Your task to perform on an android device: Do I have any events today? Image 0: 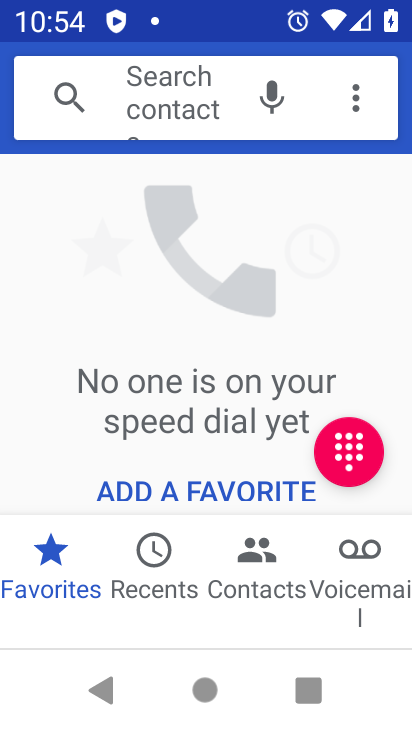
Step 0: press home button
Your task to perform on an android device: Do I have any events today? Image 1: 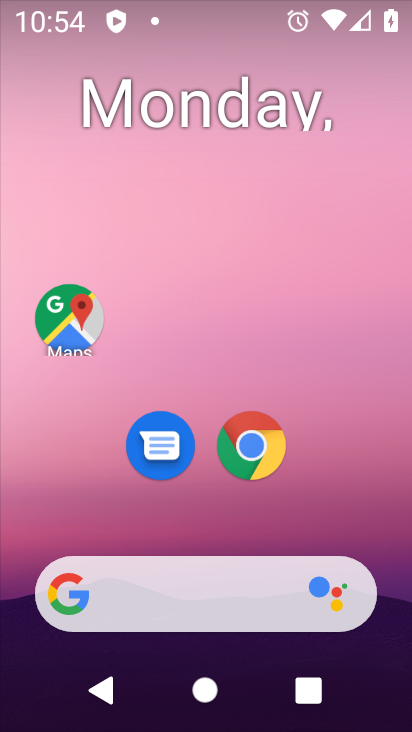
Step 1: drag from (320, 378) to (274, 106)
Your task to perform on an android device: Do I have any events today? Image 2: 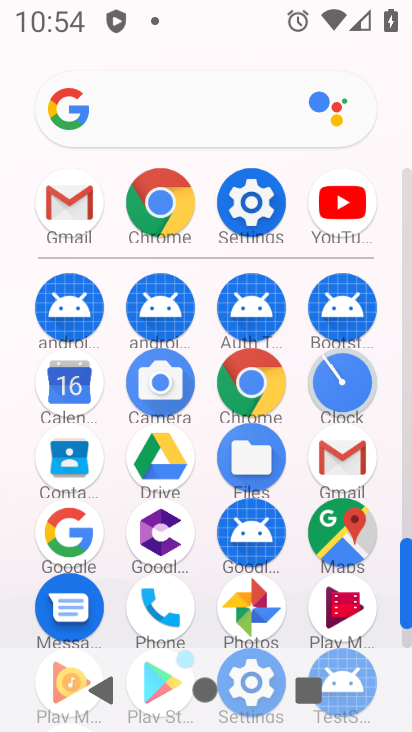
Step 2: click (61, 396)
Your task to perform on an android device: Do I have any events today? Image 3: 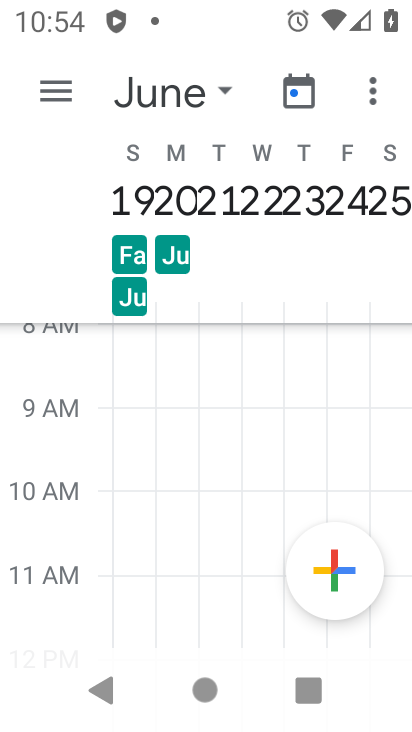
Step 3: click (177, 99)
Your task to perform on an android device: Do I have any events today? Image 4: 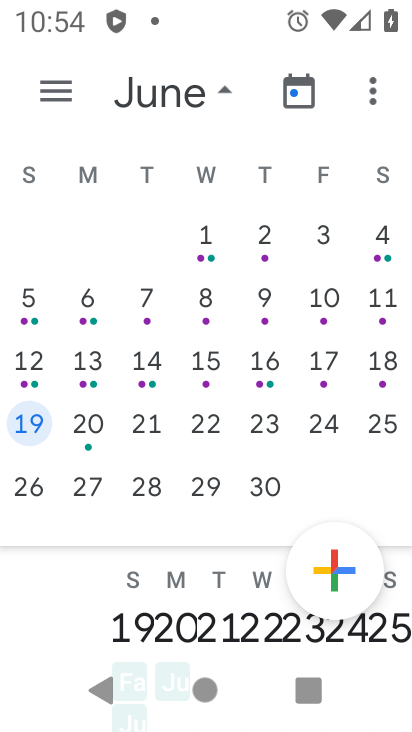
Step 4: drag from (25, 369) to (371, 378)
Your task to perform on an android device: Do I have any events today? Image 5: 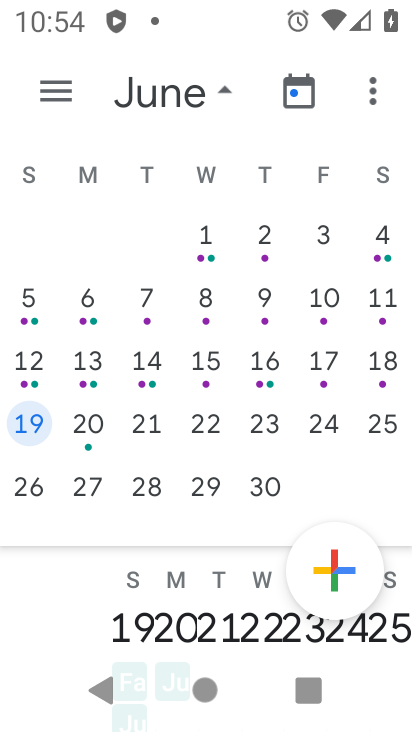
Step 5: drag from (60, 359) to (410, 387)
Your task to perform on an android device: Do I have any events today? Image 6: 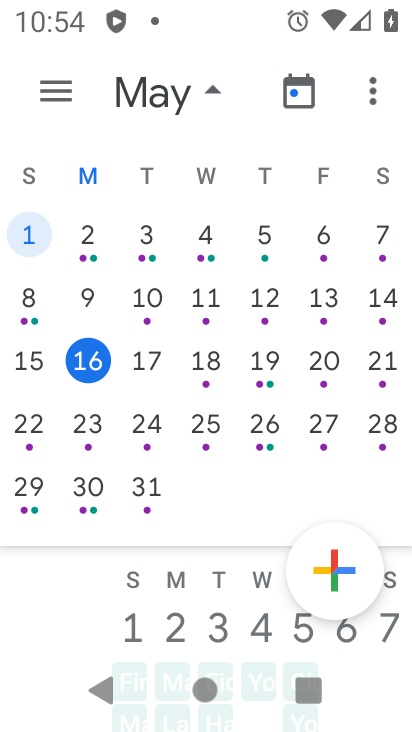
Step 6: click (98, 366)
Your task to perform on an android device: Do I have any events today? Image 7: 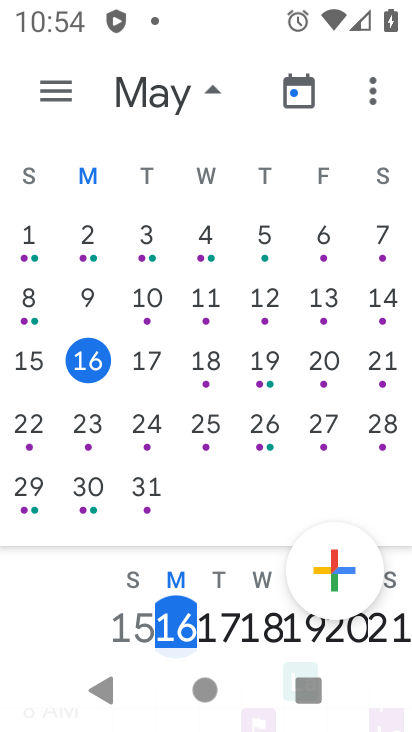
Step 7: click (178, 89)
Your task to perform on an android device: Do I have any events today? Image 8: 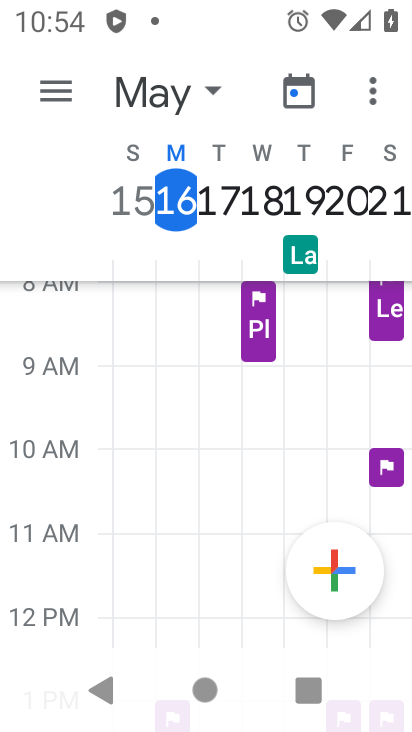
Step 8: click (74, 95)
Your task to perform on an android device: Do I have any events today? Image 9: 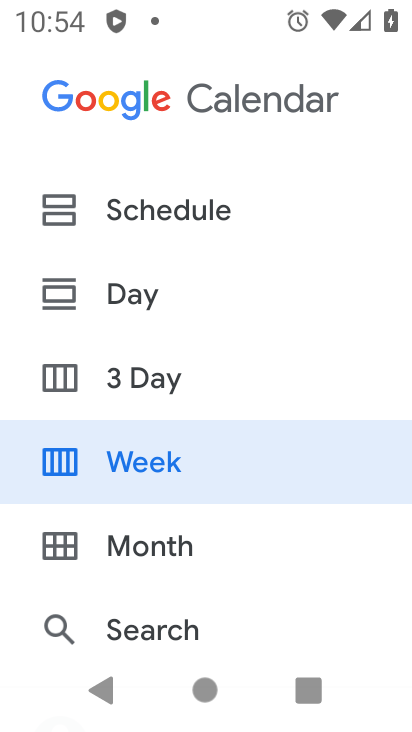
Step 9: click (116, 200)
Your task to perform on an android device: Do I have any events today? Image 10: 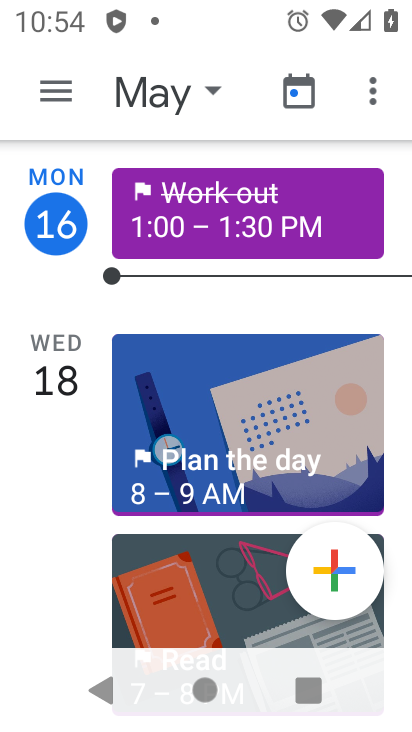
Step 10: click (227, 233)
Your task to perform on an android device: Do I have any events today? Image 11: 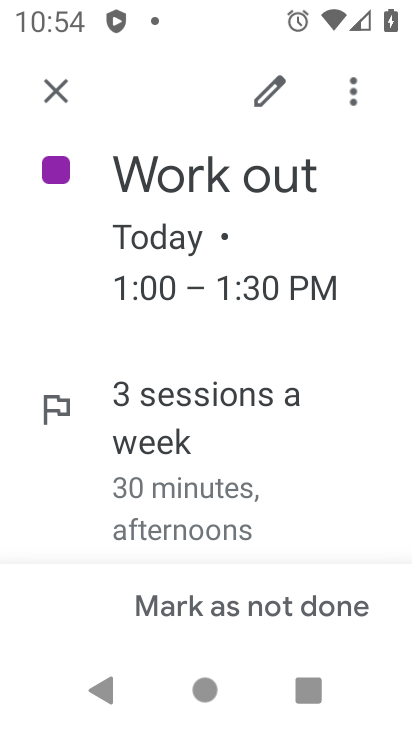
Step 11: task complete